Your task to perform on an android device: Show me the alarms in the clock app Image 0: 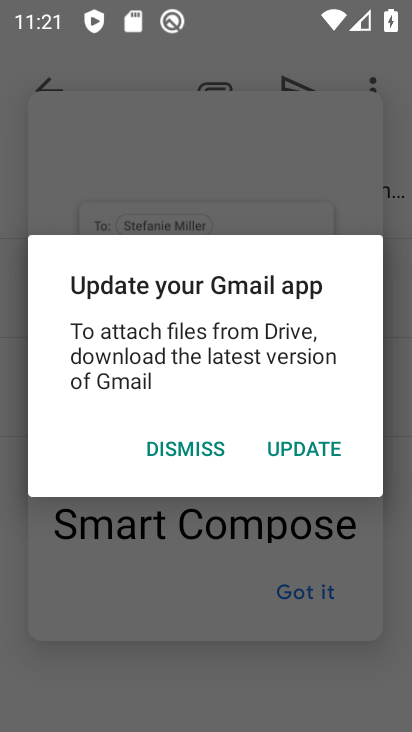
Step 0: press home button
Your task to perform on an android device: Show me the alarms in the clock app Image 1: 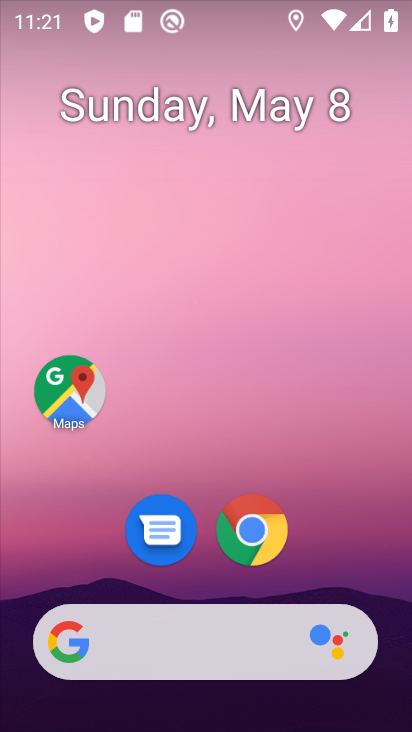
Step 1: drag from (302, 626) to (229, 6)
Your task to perform on an android device: Show me the alarms in the clock app Image 2: 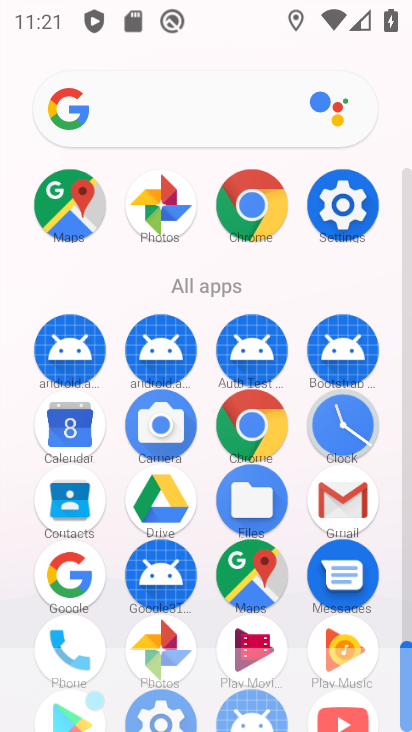
Step 2: click (342, 419)
Your task to perform on an android device: Show me the alarms in the clock app Image 3: 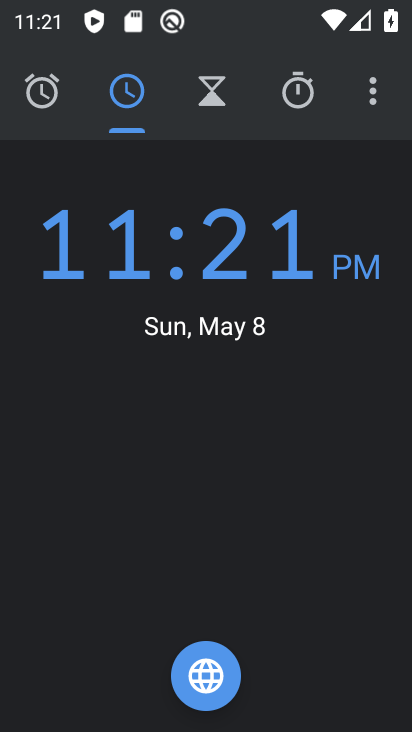
Step 3: click (50, 97)
Your task to perform on an android device: Show me the alarms in the clock app Image 4: 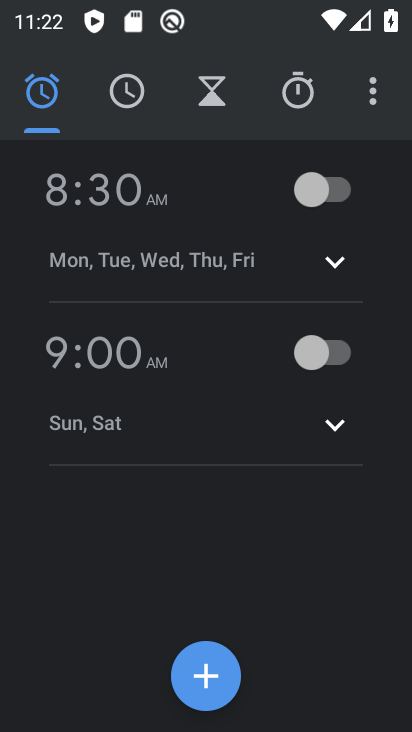
Step 4: task complete